Your task to perform on an android device: change keyboard looks Image 0: 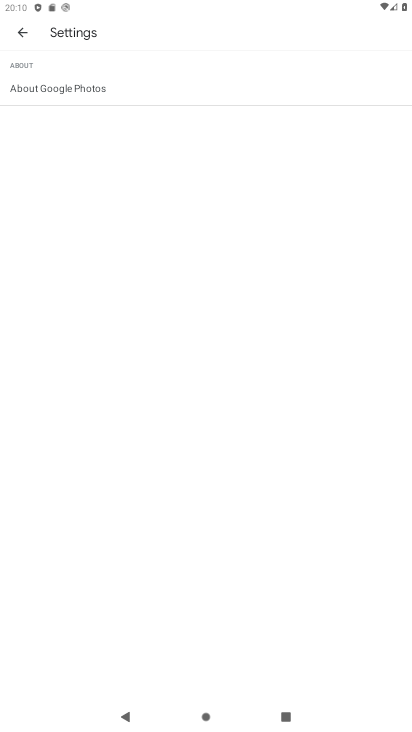
Step 0: press home button
Your task to perform on an android device: change keyboard looks Image 1: 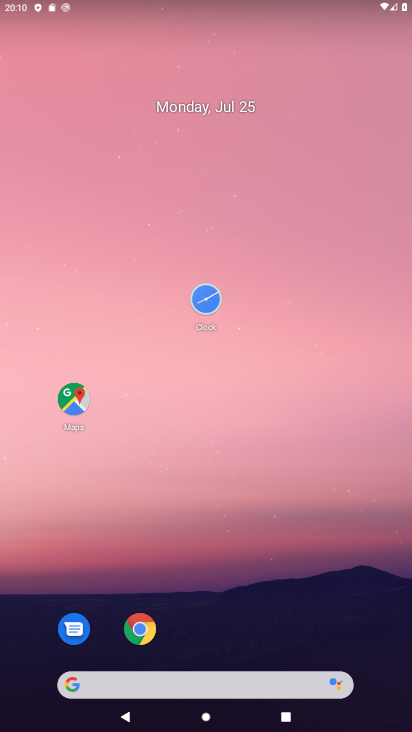
Step 1: drag from (210, 645) to (204, 195)
Your task to perform on an android device: change keyboard looks Image 2: 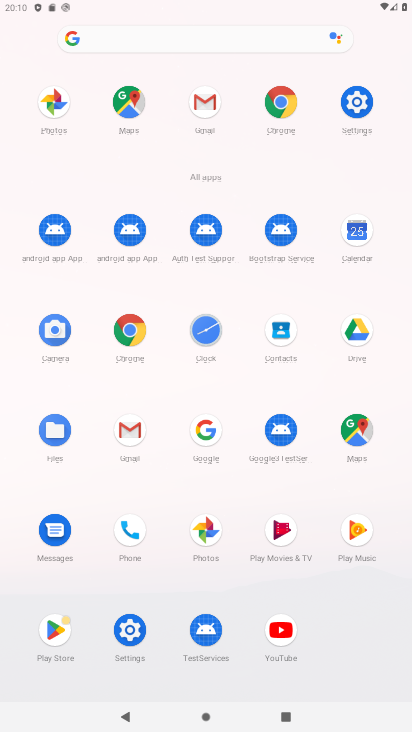
Step 2: click (126, 641)
Your task to perform on an android device: change keyboard looks Image 3: 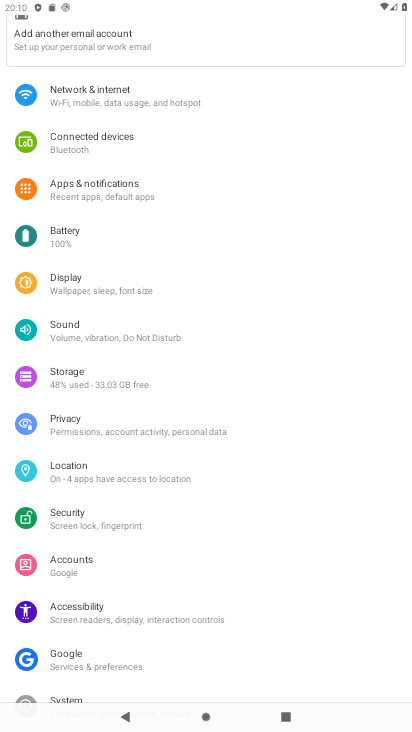
Step 3: drag from (122, 631) to (121, 327)
Your task to perform on an android device: change keyboard looks Image 4: 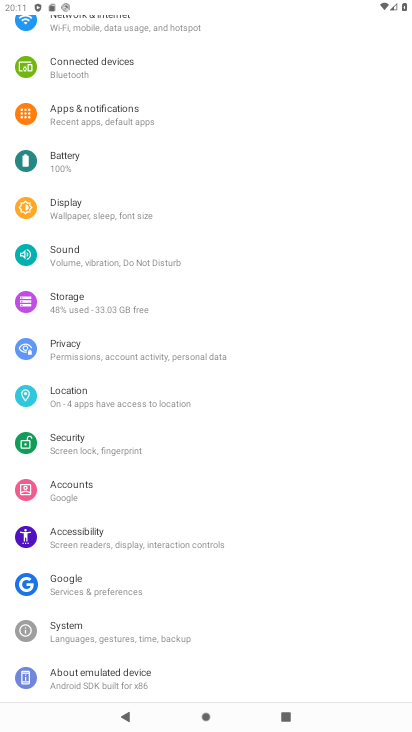
Step 4: click (63, 632)
Your task to perform on an android device: change keyboard looks Image 5: 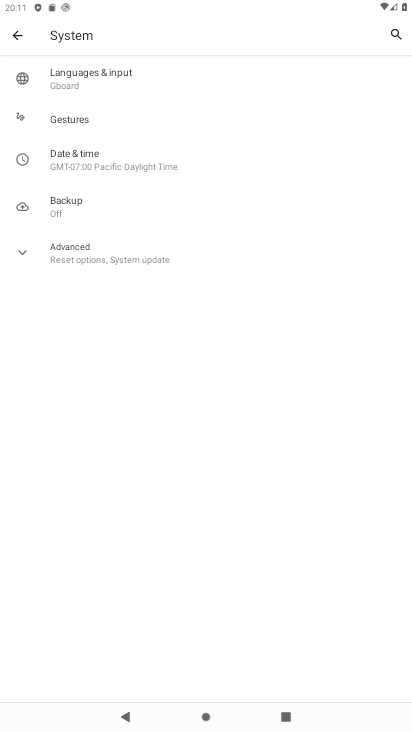
Step 5: click (99, 89)
Your task to perform on an android device: change keyboard looks Image 6: 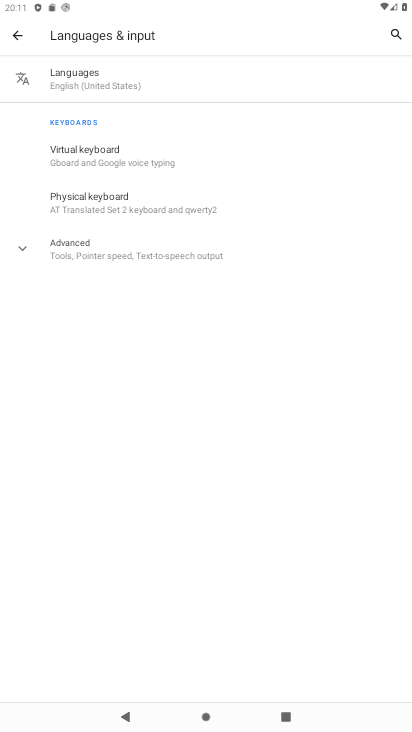
Step 6: click (58, 155)
Your task to perform on an android device: change keyboard looks Image 7: 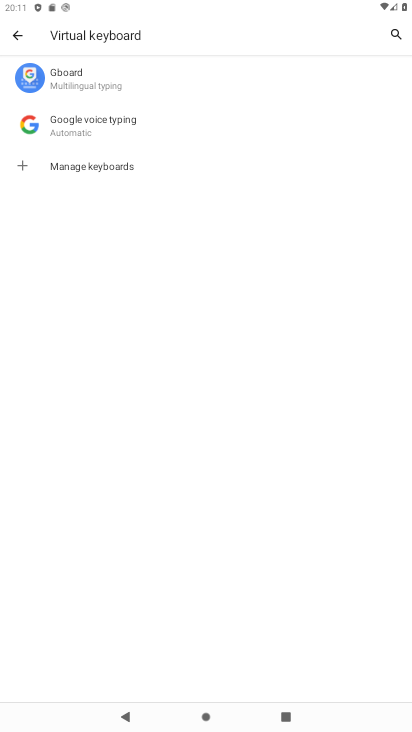
Step 7: click (88, 90)
Your task to perform on an android device: change keyboard looks Image 8: 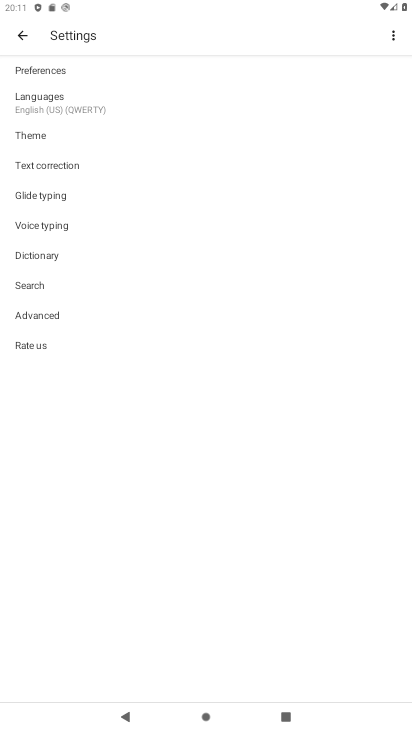
Step 8: click (46, 142)
Your task to perform on an android device: change keyboard looks Image 9: 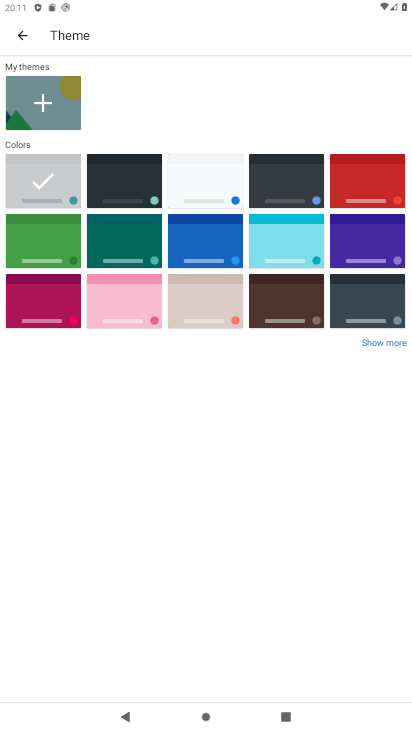
Step 9: click (119, 188)
Your task to perform on an android device: change keyboard looks Image 10: 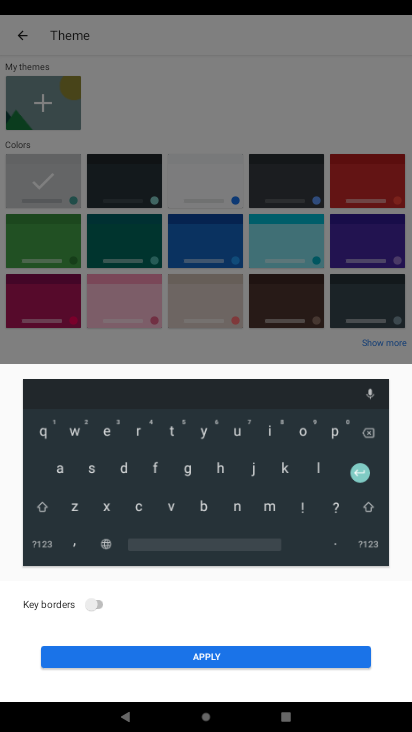
Step 10: click (269, 652)
Your task to perform on an android device: change keyboard looks Image 11: 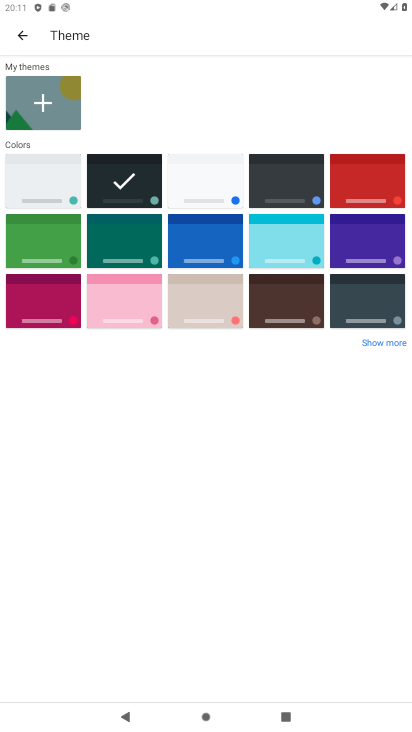
Step 11: task complete